Your task to perform on an android device: check google app version Image 0: 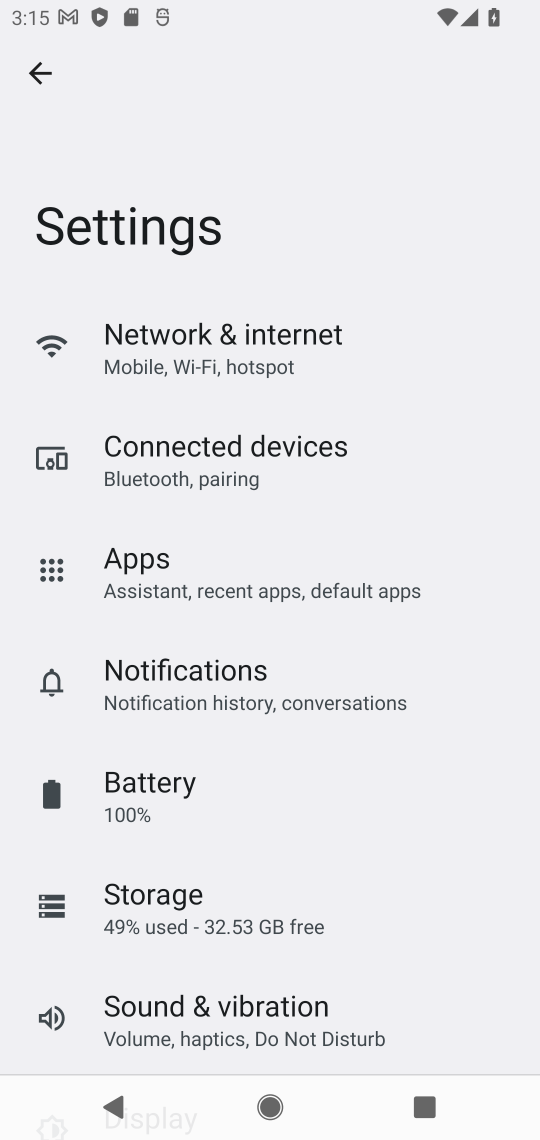
Step 0: press home button
Your task to perform on an android device: check google app version Image 1: 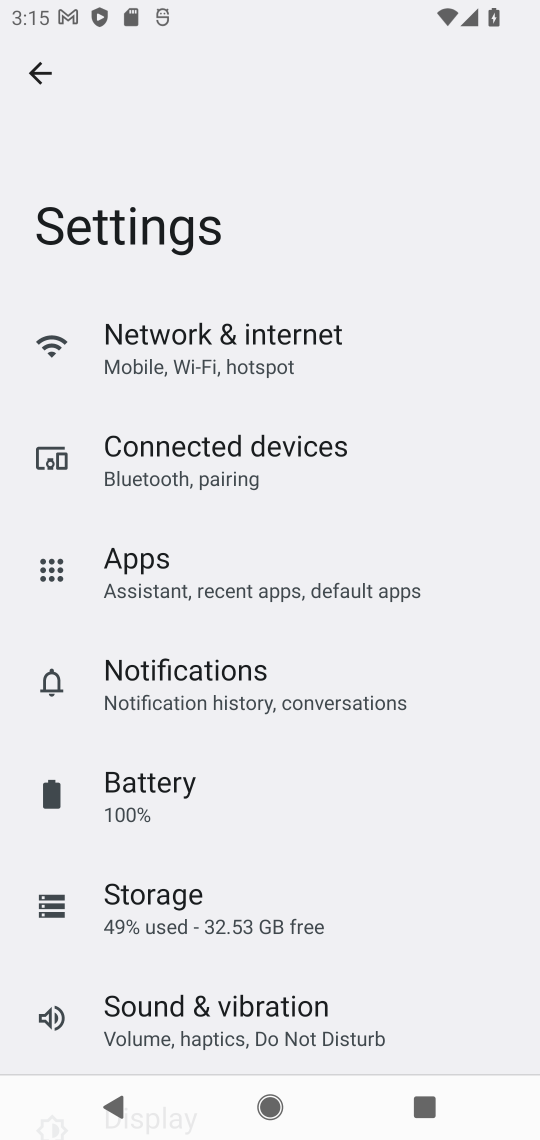
Step 1: press home button
Your task to perform on an android device: check google app version Image 2: 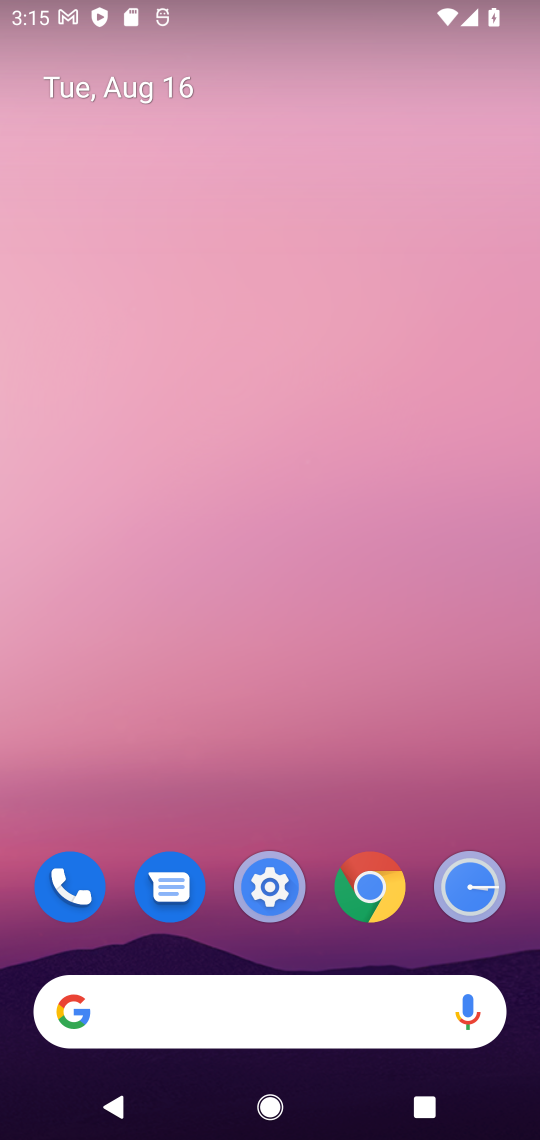
Step 2: drag from (393, 810) to (377, 24)
Your task to perform on an android device: check google app version Image 3: 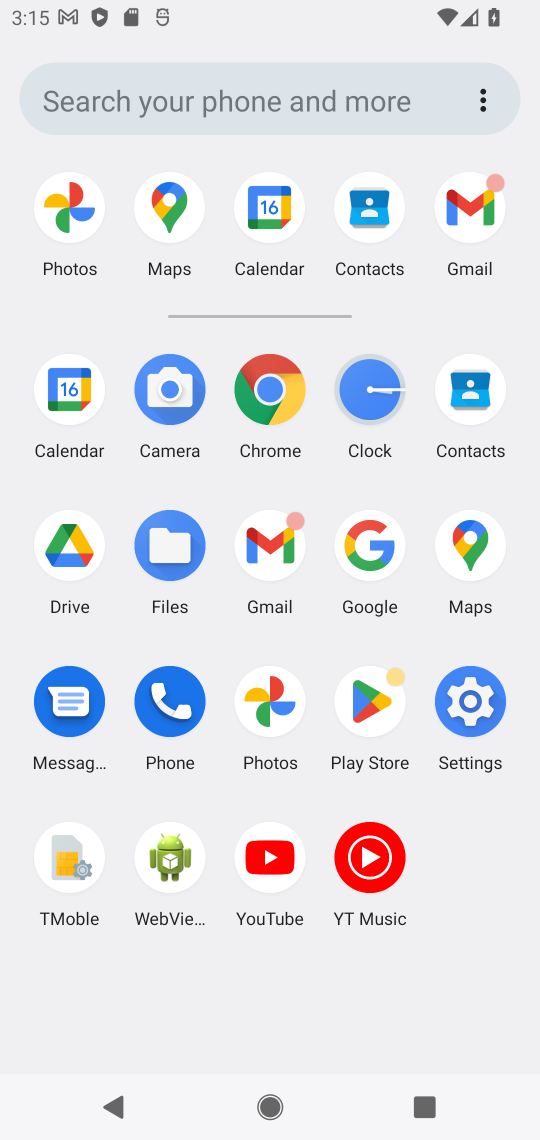
Step 3: click (348, 554)
Your task to perform on an android device: check google app version Image 4: 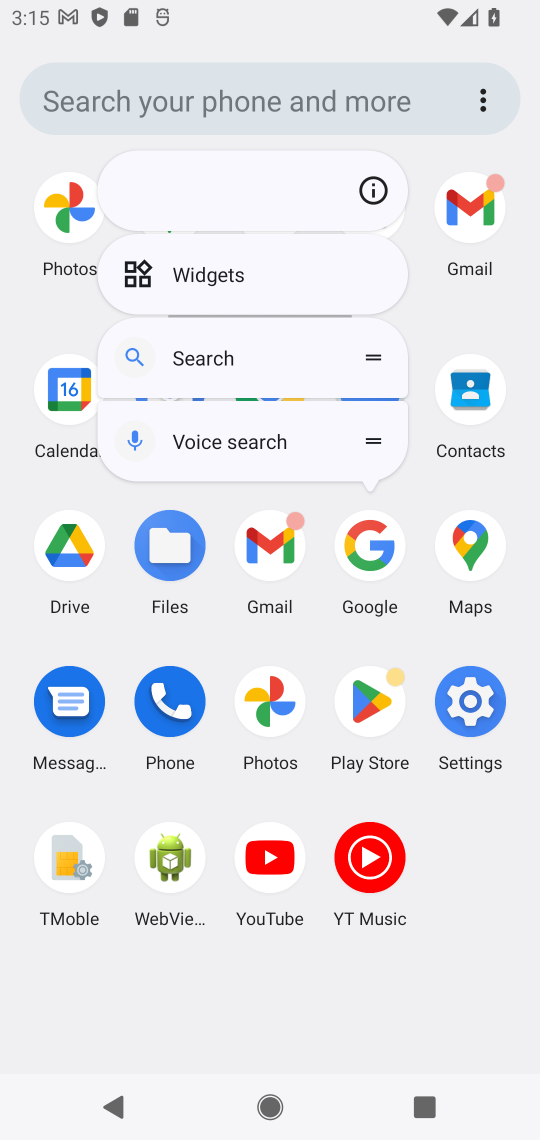
Step 4: click (375, 187)
Your task to perform on an android device: check google app version Image 5: 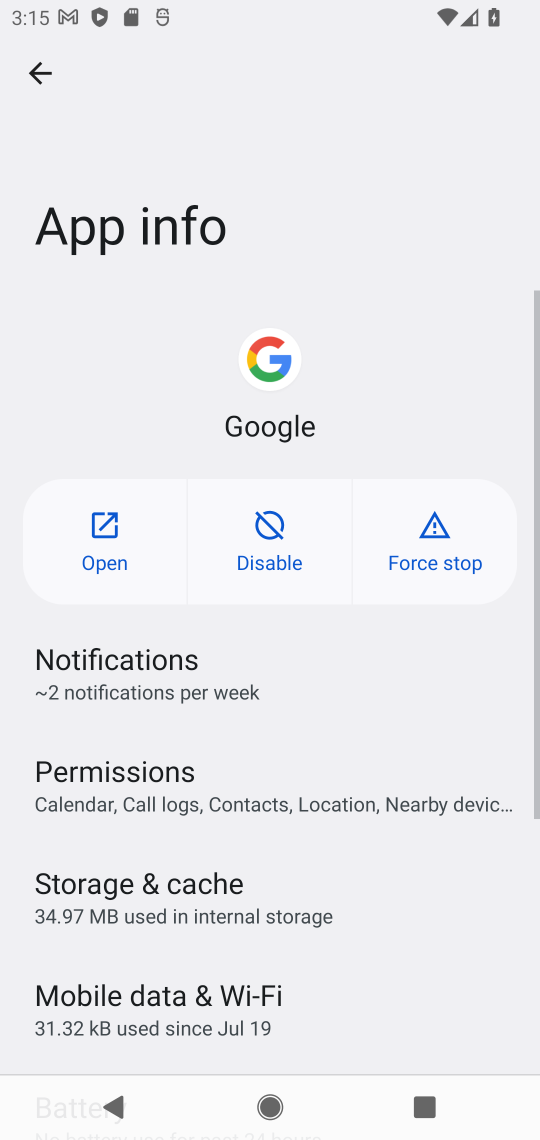
Step 5: task complete